Your task to perform on an android device: Open Chrome and go to settings Image 0: 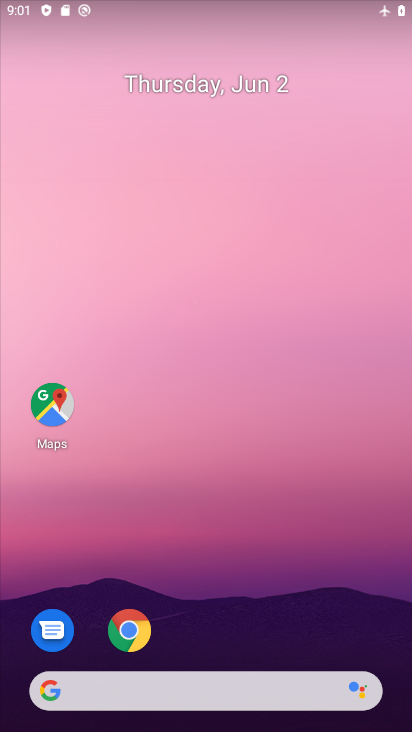
Step 0: click (118, 633)
Your task to perform on an android device: Open Chrome and go to settings Image 1: 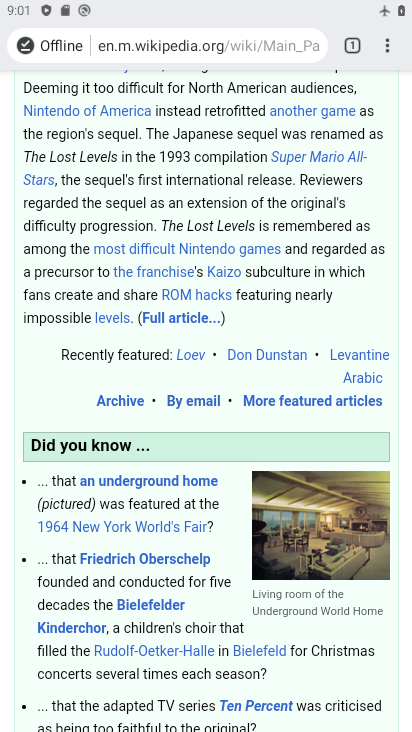
Step 1: click (382, 44)
Your task to perform on an android device: Open Chrome and go to settings Image 2: 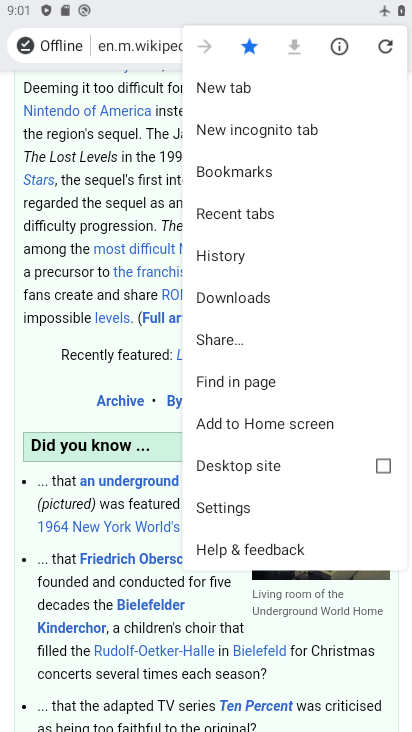
Step 2: click (253, 492)
Your task to perform on an android device: Open Chrome and go to settings Image 3: 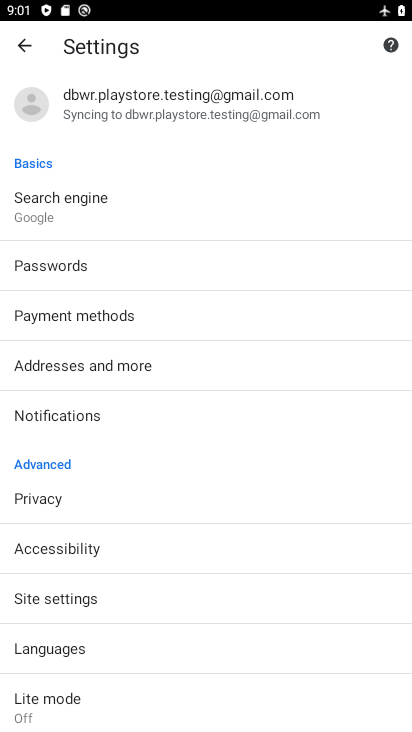
Step 3: task complete